Your task to perform on an android device: Search for Italian restaurants on Maps Image 0: 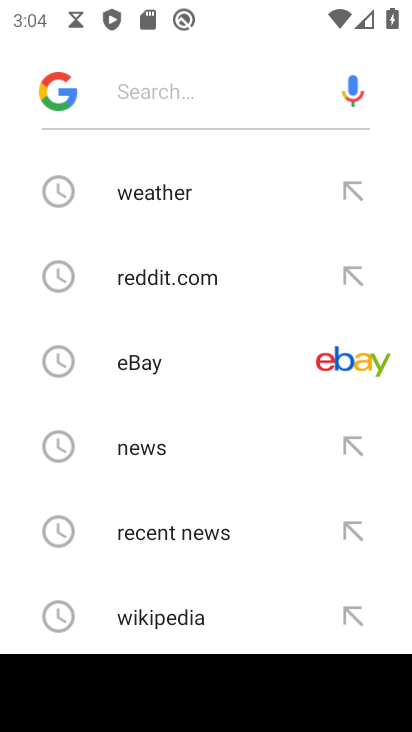
Step 0: press home button
Your task to perform on an android device: Search for Italian restaurants on Maps Image 1: 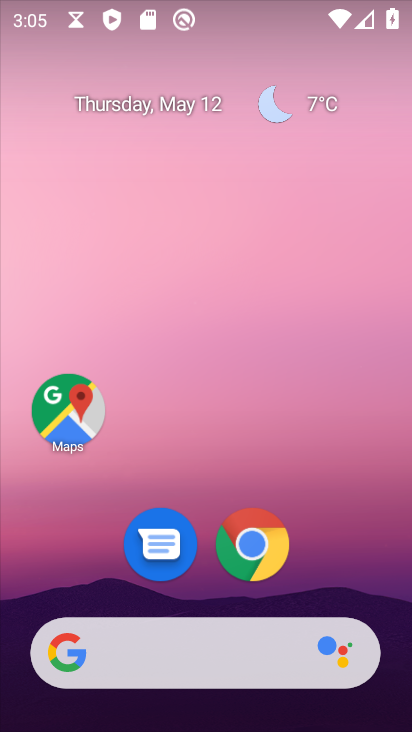
Step 1: click (81, 409)
Your task to perform on an android device: Search for Italian restaurants on Maps Image 2: 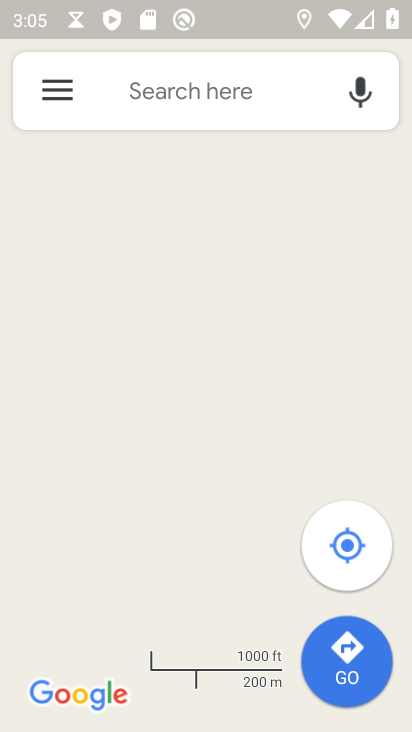
Step 2: click (207, 95)
Your task to perform on an android device: Search for Italian restaurants on Maps Image 3: 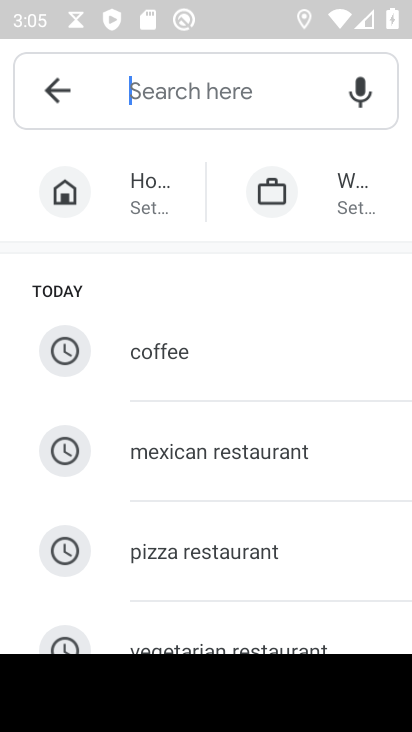
Step 3: type "italian restaurants"
Your task to perform on an android device: Search for Italian restaurants on Maps Image 4: 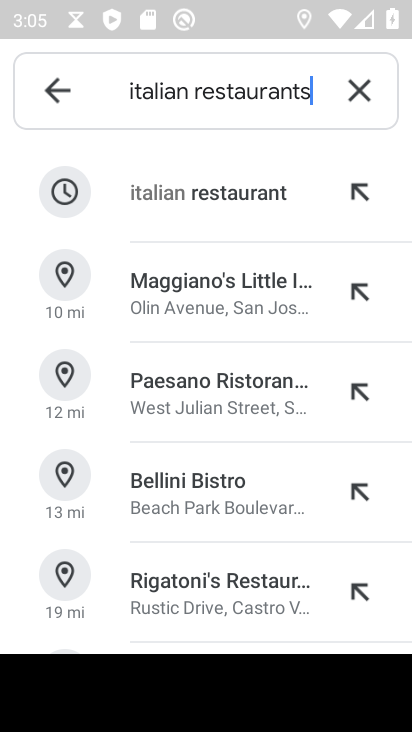
Step 4: click (201, 207)
Your task to perform on an android device: Search for Italian restaurants on Maps Image 5: 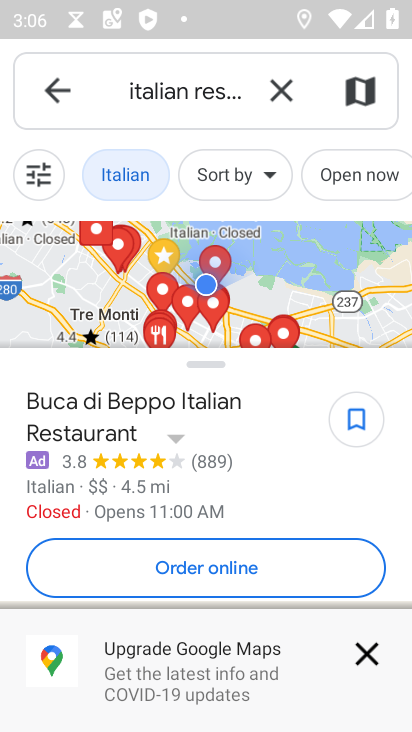
Step 5: task complete